Your task to perform on an android device: check the backup settings in the google photos Image 0: 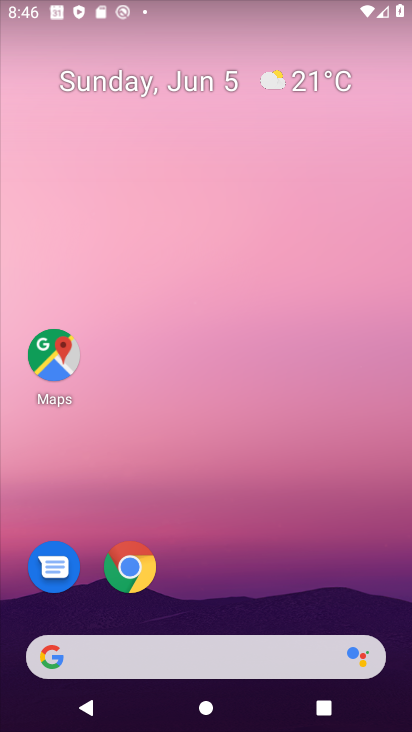
Step 0: drag from (171, 637) to (256, 310)
Your task to perform on an android device: check the backup settings in the google photos Image 1: 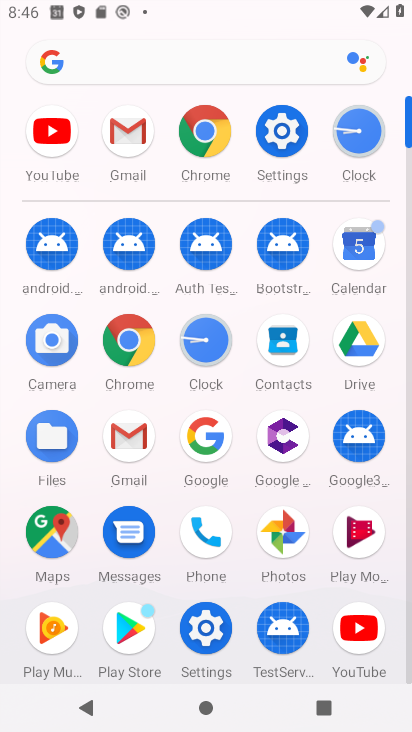
Step 1: click (280, 530)
Your task to perform on an android device: check the backup settings in the google photos Image 2: 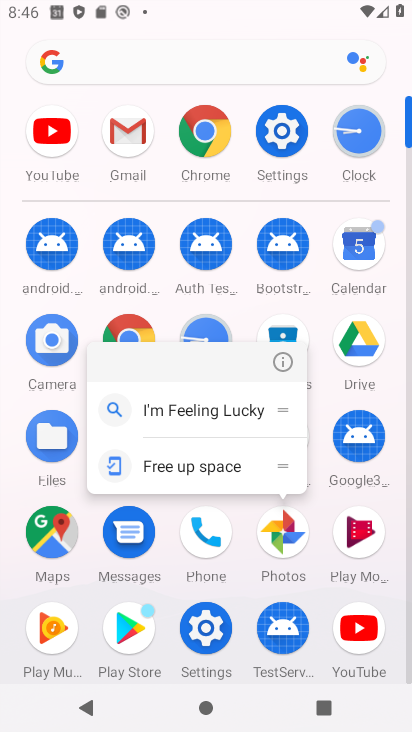
Step 2: click (280, 530)
Your task to perform on an android device: check the backup settings in the google photos Image 3: 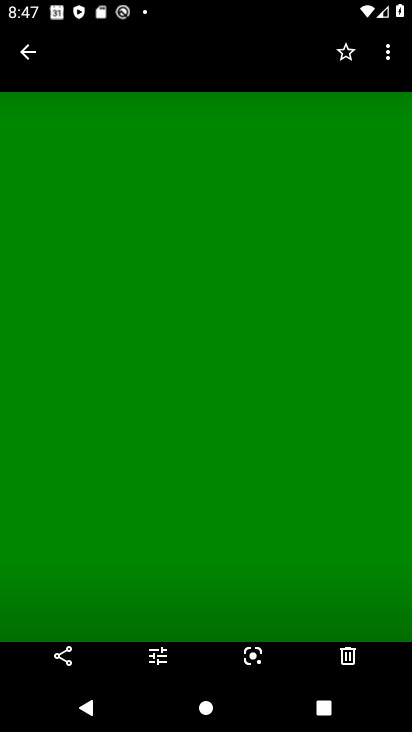
Step 3: click (38, 50)
Your task to perform on an android device: check the backup settings in the google photos Image 4: 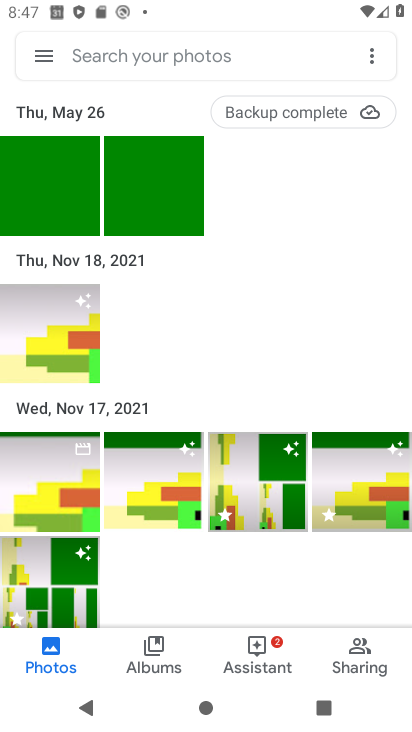
Step 4: click (49, 59)
Your task to perform on an android device: check the backup settings in the google photos Image 5: 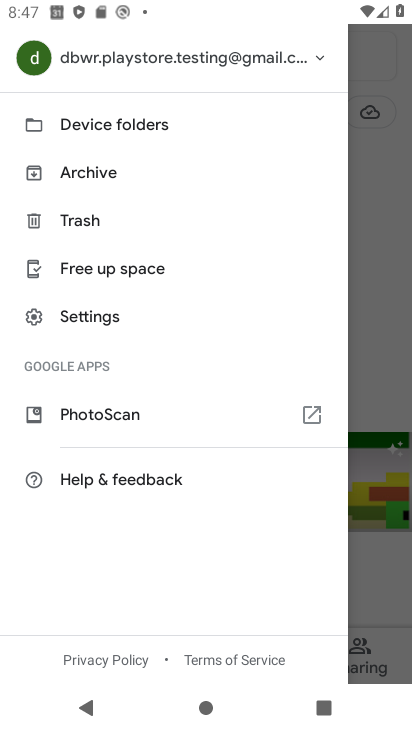
Step 5: click (96, 318)
Your task to perform on an android device: check the backup settings in the google photos Image 6: 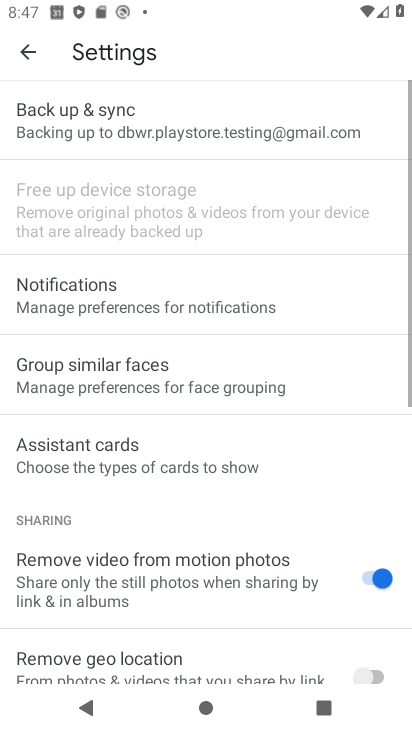
Step 6: click (112, 117)
Your task to perform on an android device: check the backup settings in the google photos Image 7: 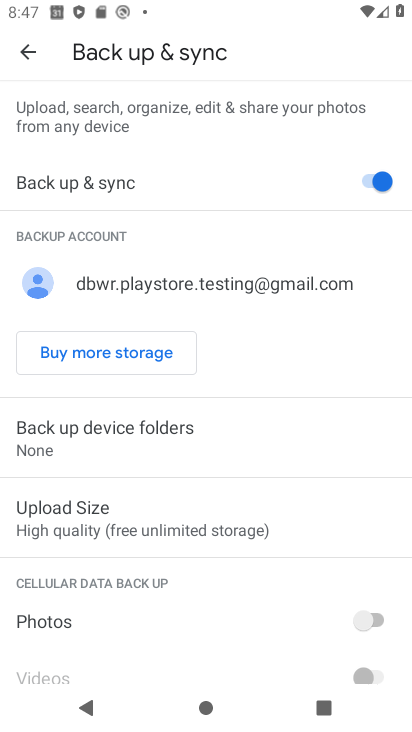
Step 7: task complete